Your task to perform on an android device: What's the price of the TCL TV? Image 0: 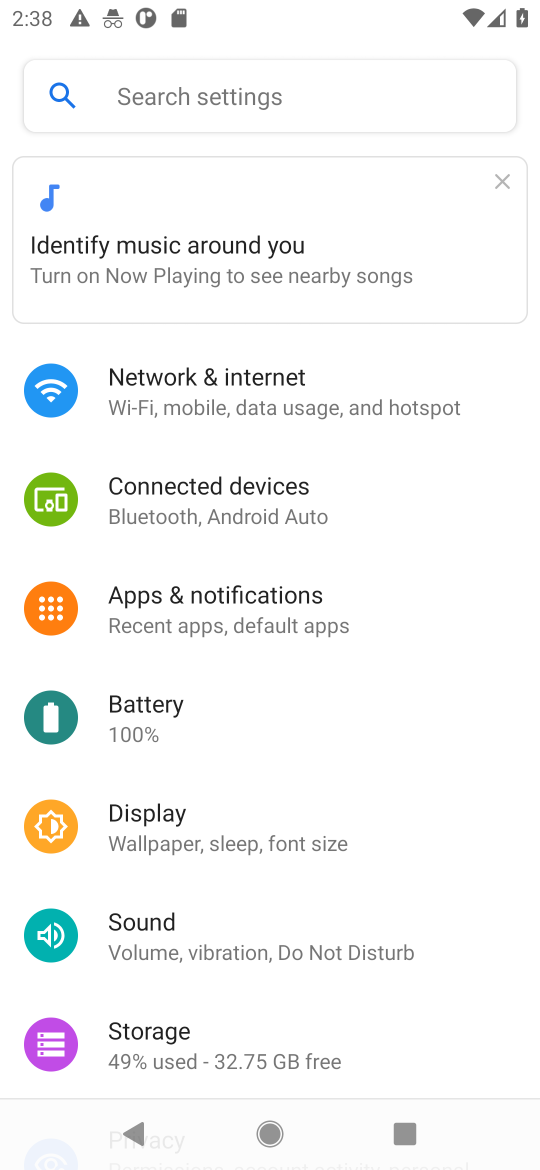
Step 0: press home button
Your task to perform on an android device: What's the price of the TCL TV? Image 1: 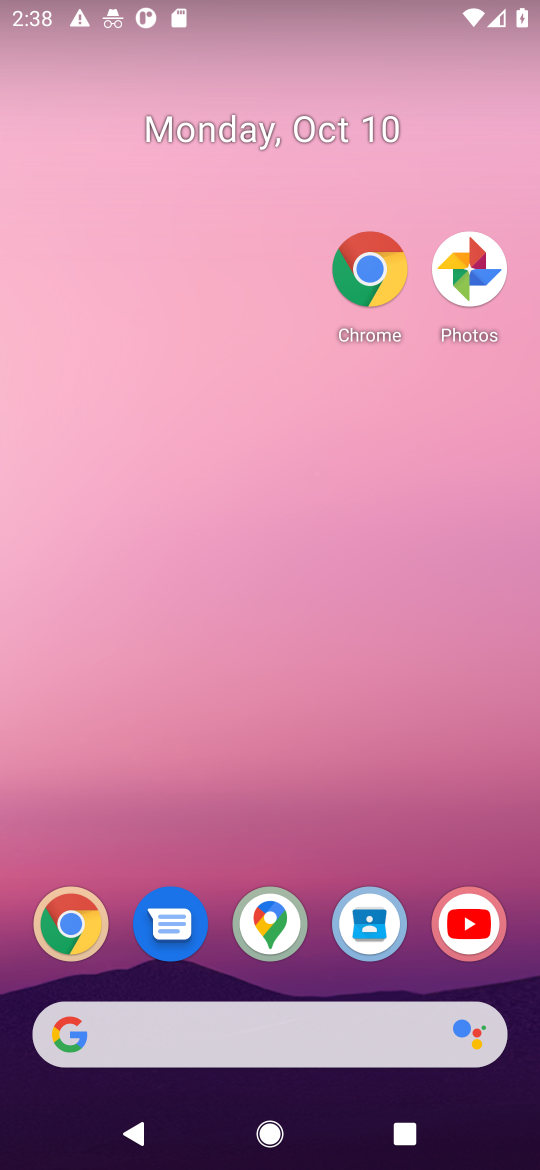
Step 1: drag from (400, 836) to (369, 1)
Your task to perform on an android device: What's the price of the TCL TV? Image 2: 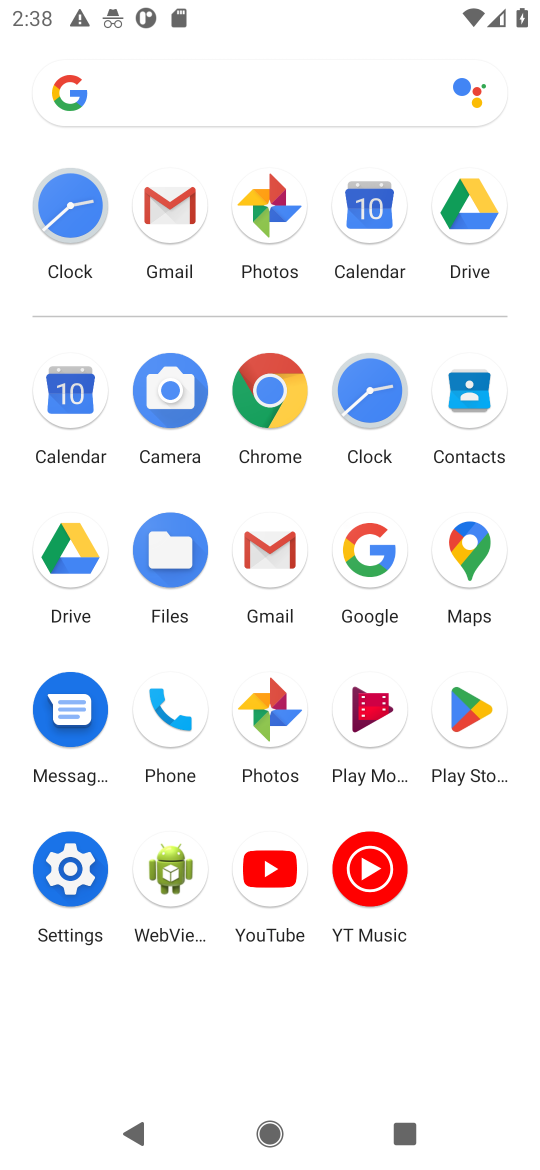
Step 2: click (278, 394)
Your task to perform on an android device: What's the price of the TCL TV? Image 3: 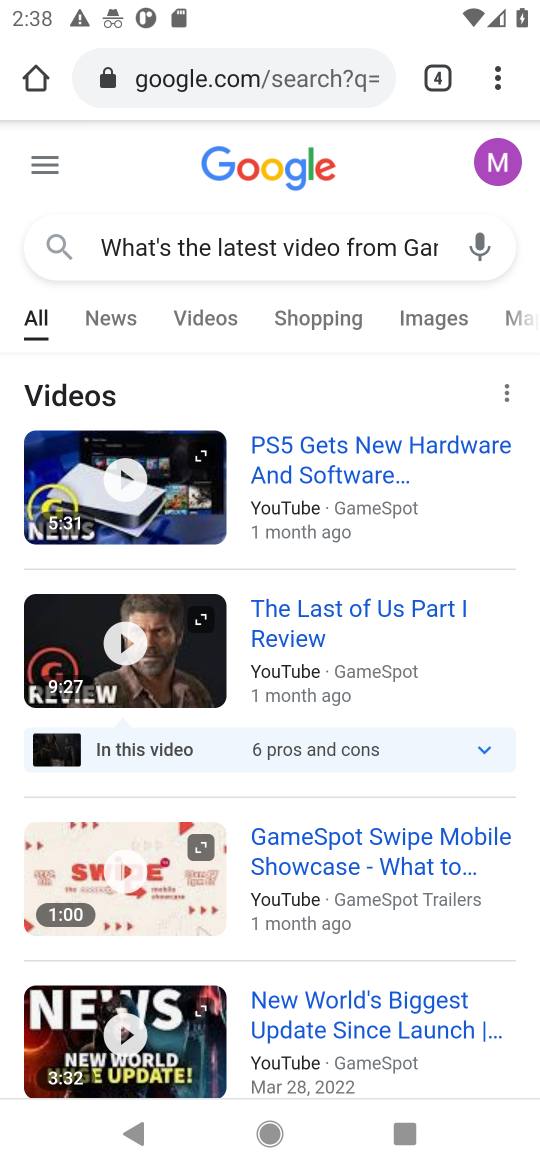
Step 3: click (231, 81)
Your task to perform on an android device: What's the price of the TCL TV? Image 4: 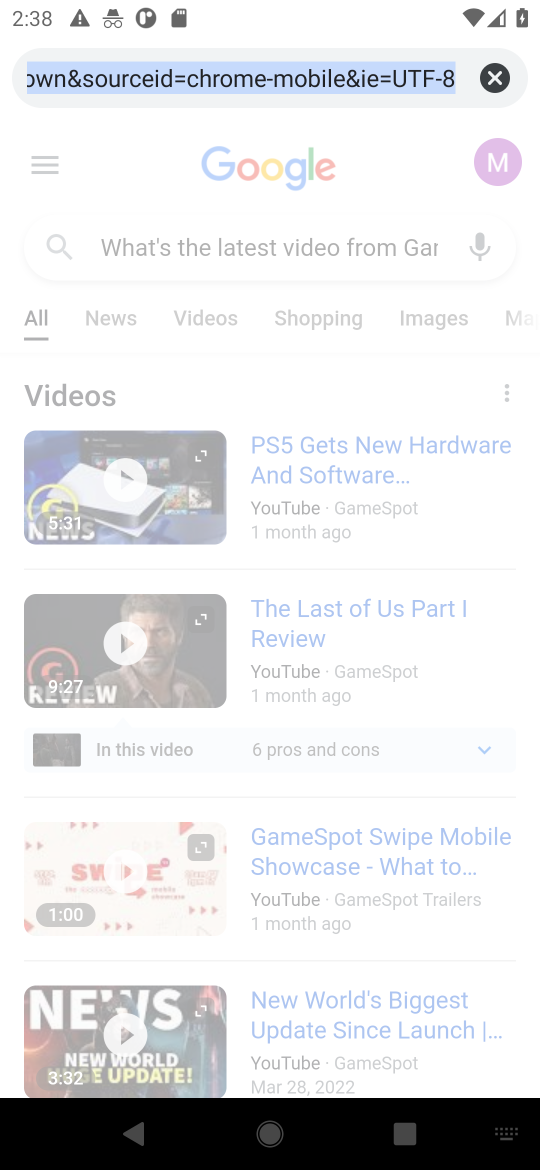
Step 4: click (494, 83)
Your task to perform on an android device: What's the price of the TCL TV? Image 5: 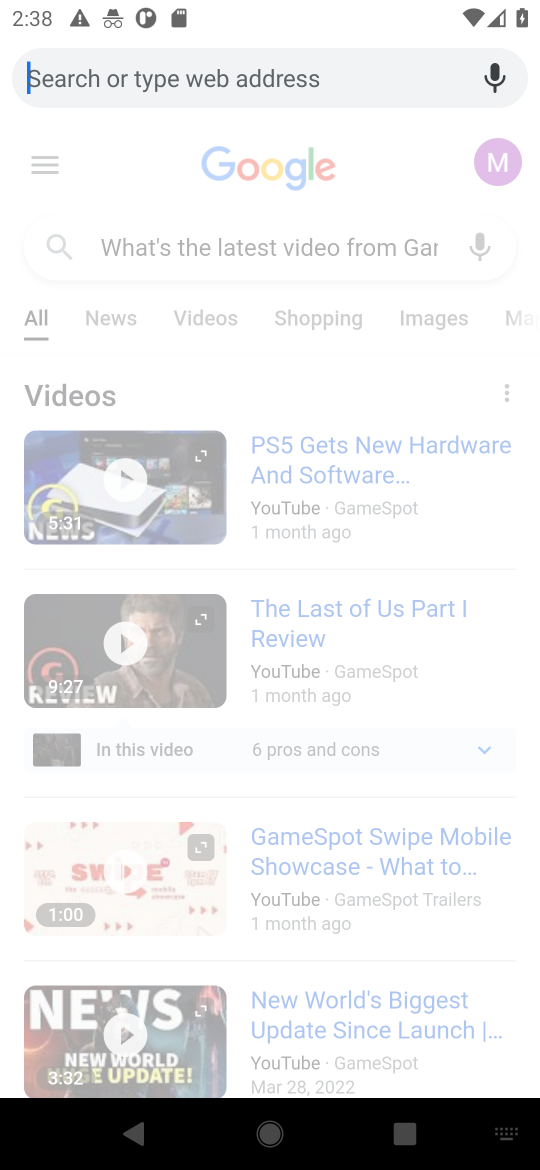
Step 5: type "What's the price of the TCL TV?"
Your task to perform on an android device: What's the price of the TCL TV? Image 6: 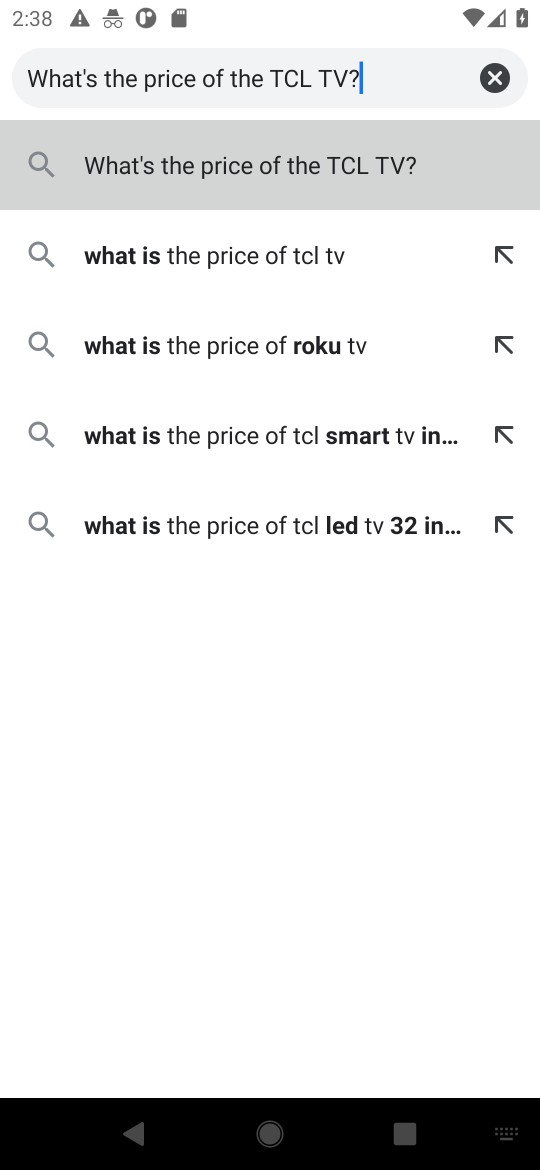
Step 6: click (274, 156)
Your task to perform on an android device: What's the price of the TCL TV? Image 7: 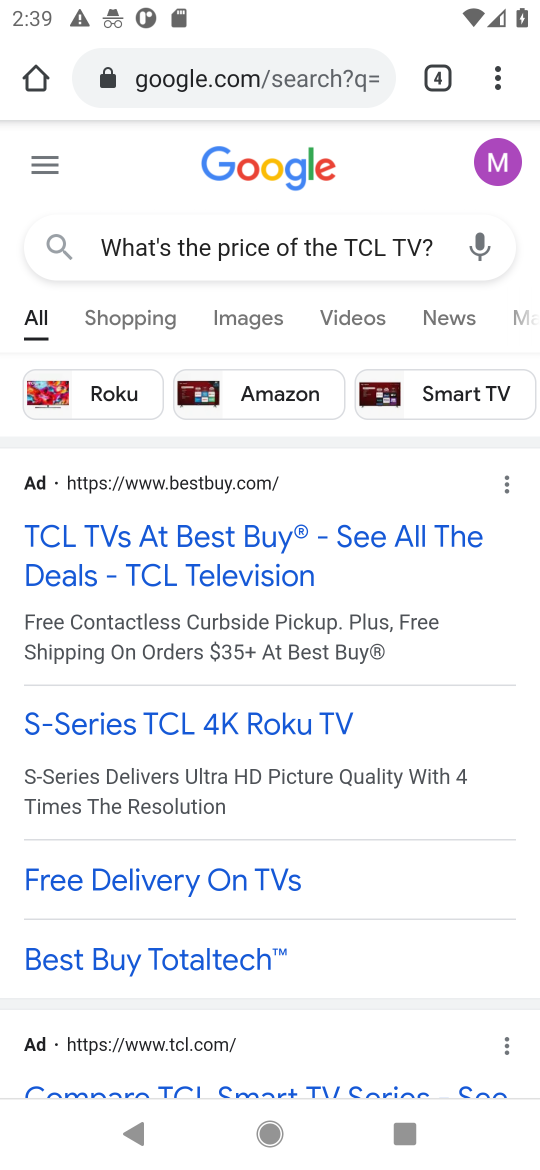
Step 7: task complete